Your task to perform on an android device: Check the news Image 0: 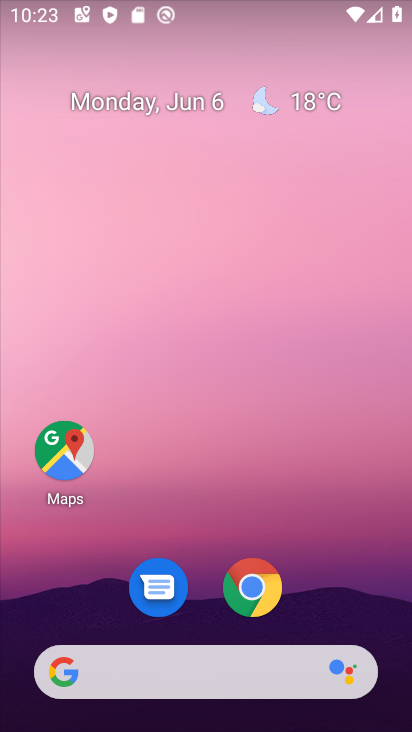
Step 0: click (228, 667)
Your task to perform on an android device: Check the news Image 1: 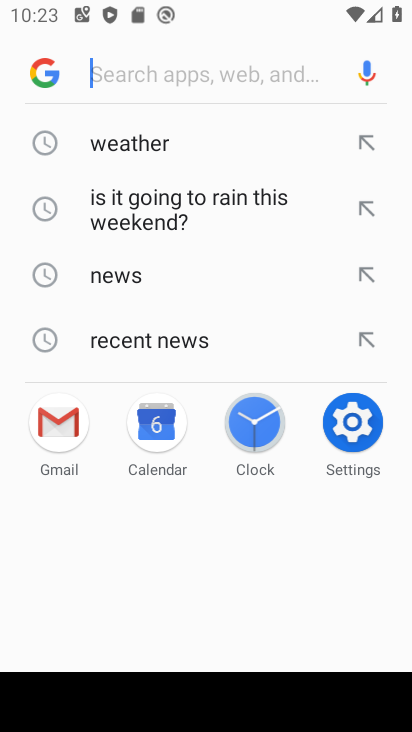
Step 1: type "news"
Your task to perform on an android device: Check the news Image 2: 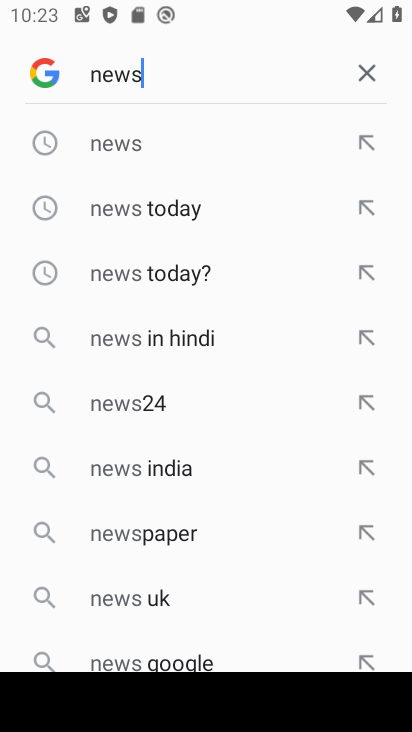
Step 2: click (104, 139)
Your task to perform on an android device: Check the news Image 3: 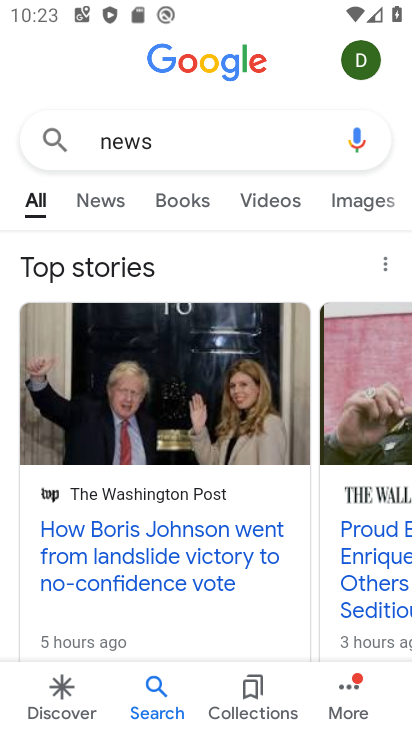
Step 3: task complete